Your task to perform on an android device: What is the news today? Image 0: 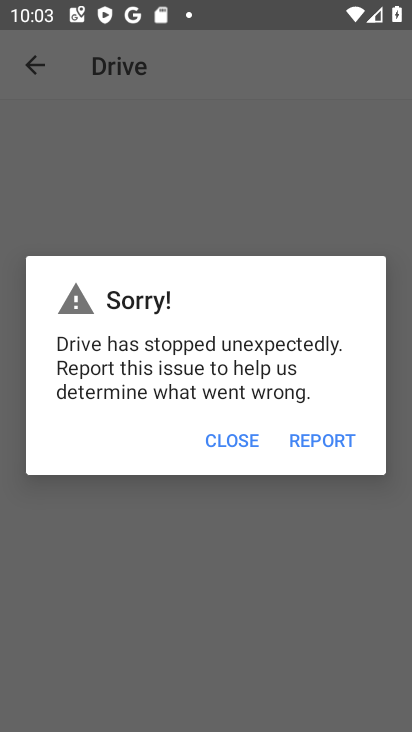
Step 0: press home button
Your task to perform on an android device: What is the news today? Image 1: 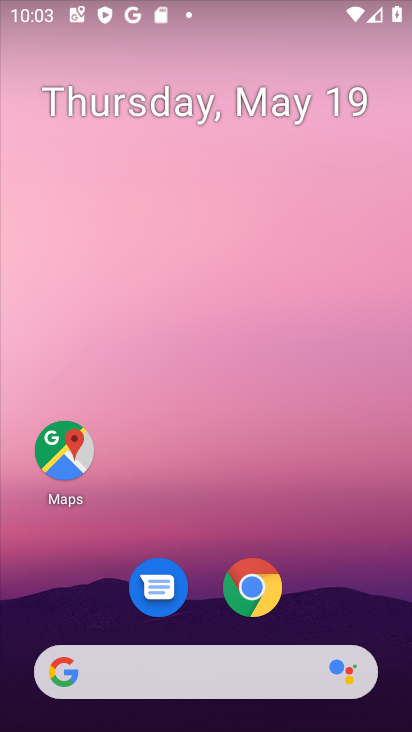
Step 1: click (269, 592)
Your task to perform on an android device: What is the news today? Image 2: 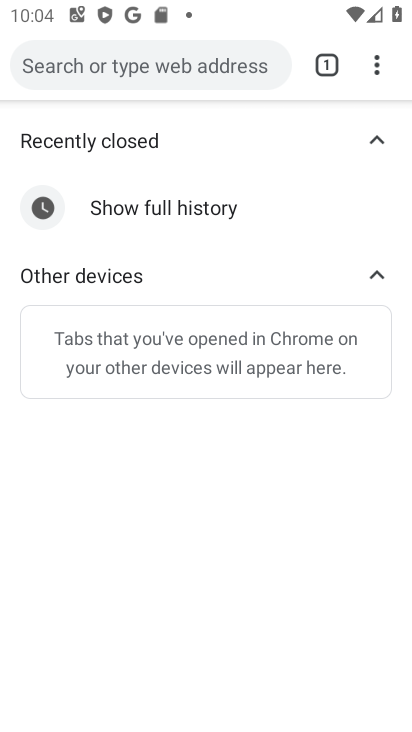
Step 2: click (234, 69)
Your task to perform on an android device: What is the news today? Image 3: 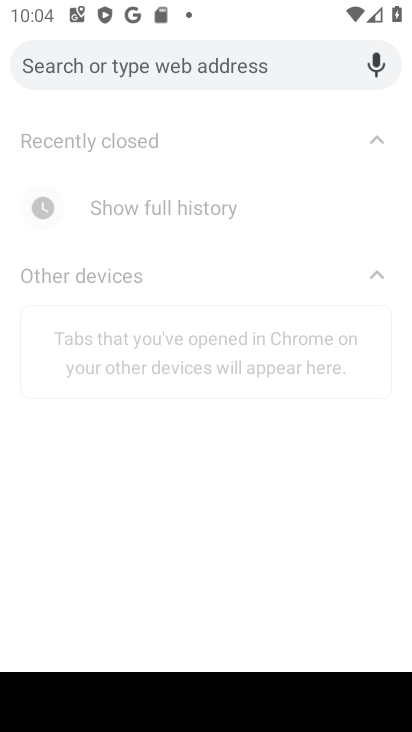
Step 3: type "What is the news today?"
Your task to perform on an android device: What is the news today? Image 4: 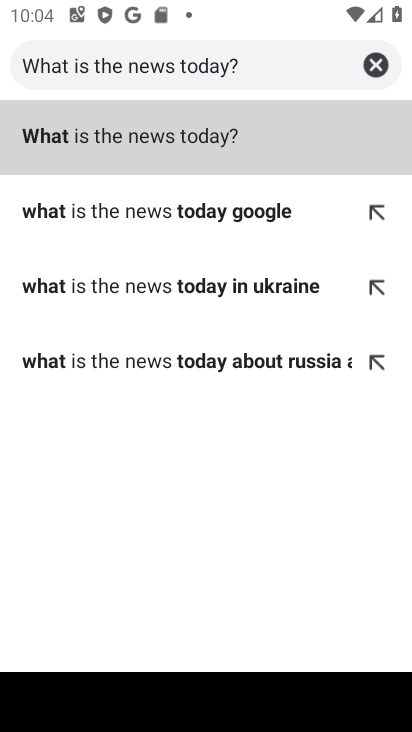
Step 4: click (151, 134)
Your task to perform on an android device: What is the news today? Image 5: 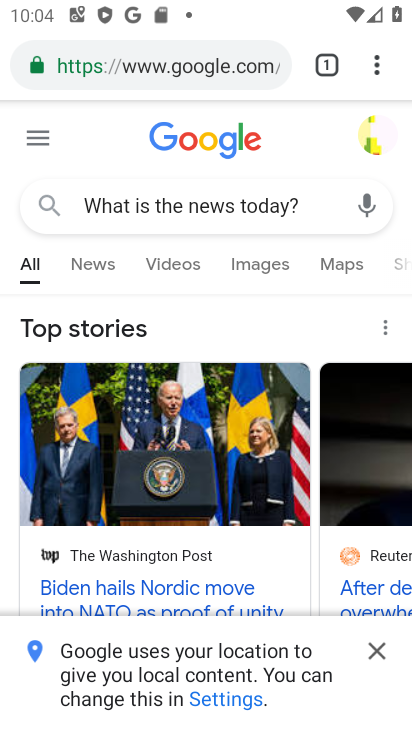
Step 5: click (376, 655)
Your task to perform on an android device: What is the news today? Image 6: 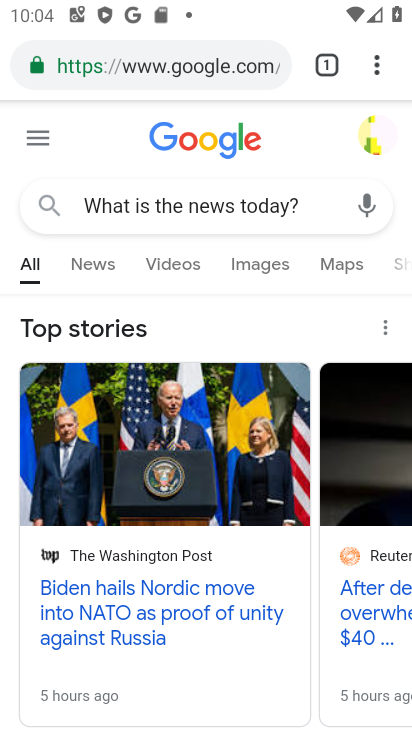
Step 6: task complete